Your task to perform on an android device: What's the weather today? Image 0: 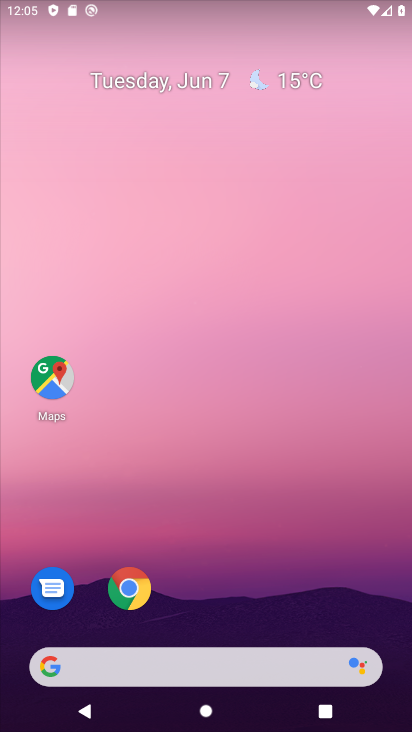
Step 0: click (262, 77)
Your task to perform on an android device: What's the weather today? Image 1: 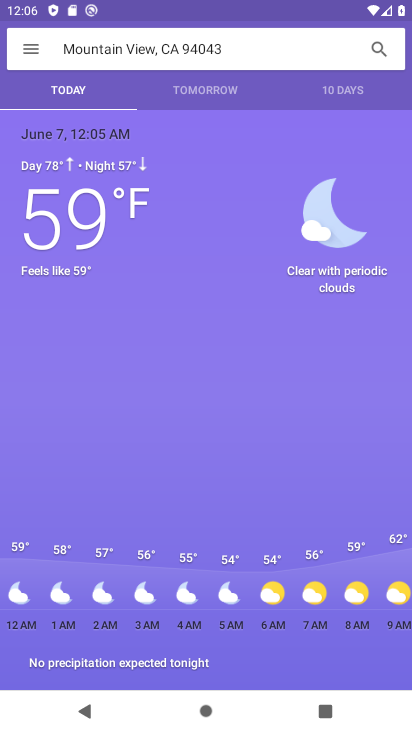
Step 1: task complete